Your task to perform on an android device: Go to network settings Image 0: 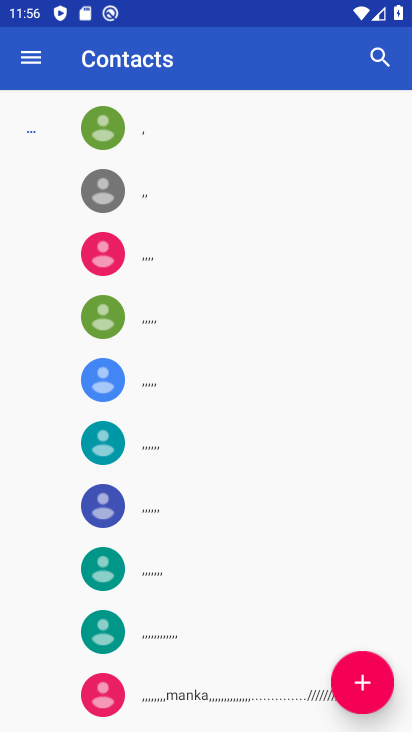
Step 0: press home button
Your task to perform on an android device: Go to network settings Image 1: 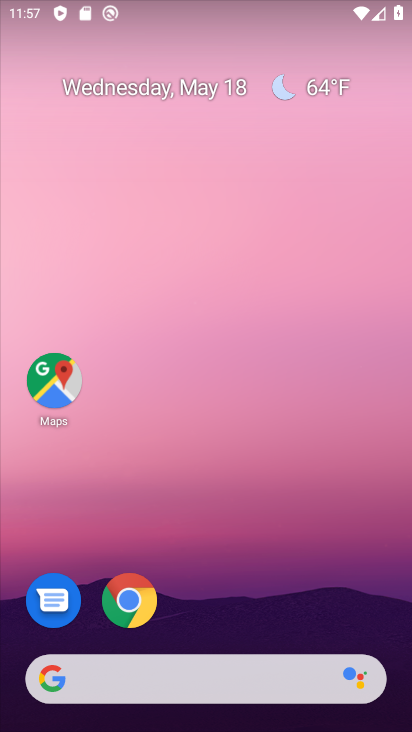
Step 1: drag from (242, 639) to (252, 29)
Your task to perform on an android device: Go to network settings Image 2: 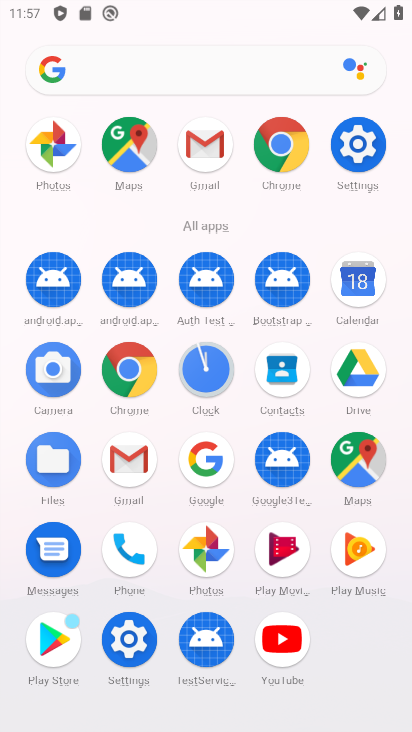
Step 2: click (350, 159)
Your task to perform on an android device: Go to network settings Image 3: 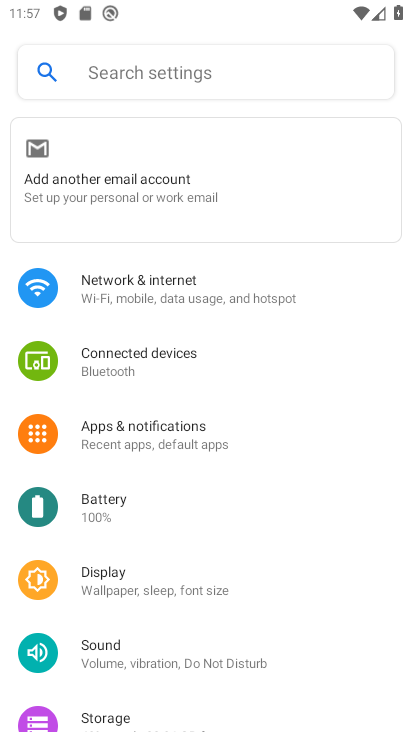
Step 3: click (157, 307)
Your task to perform on an android device: Go to network settings Image 4: 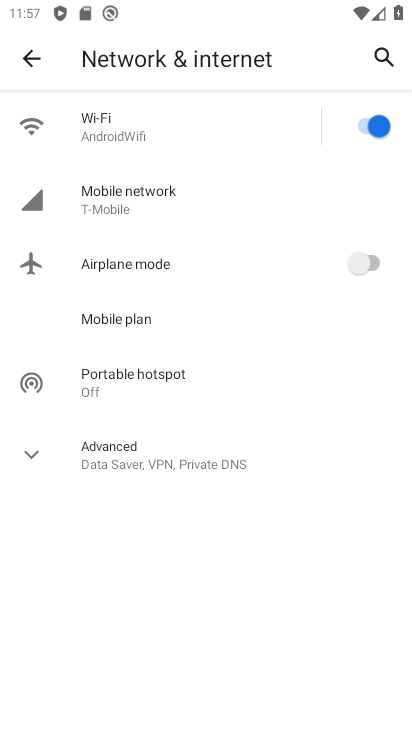
Step 4: click (136, 181)
Your task to perform on an android device: Go to network settings Image 5: 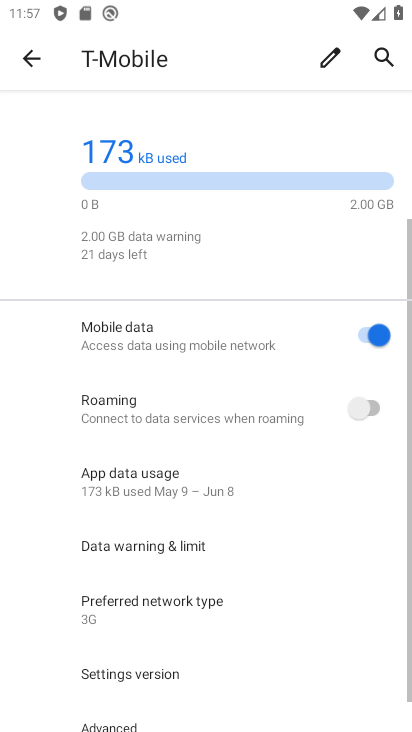
Step 5: task complete